Your task to perform on an android device: Go to location settings Image 0: 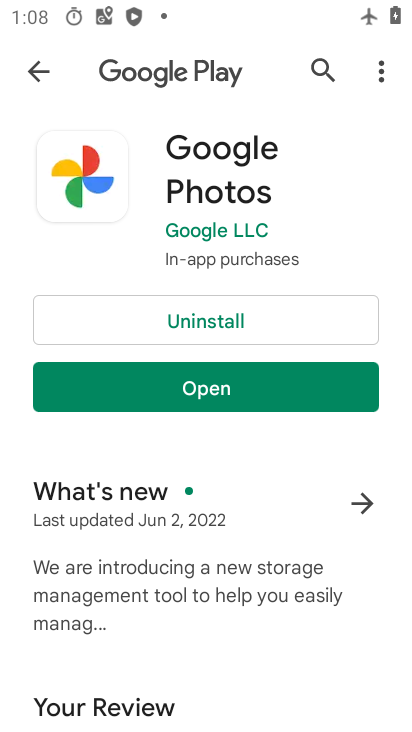
Step 0: press home button
Your task to perform on an android device: Go to location settings Image 1: 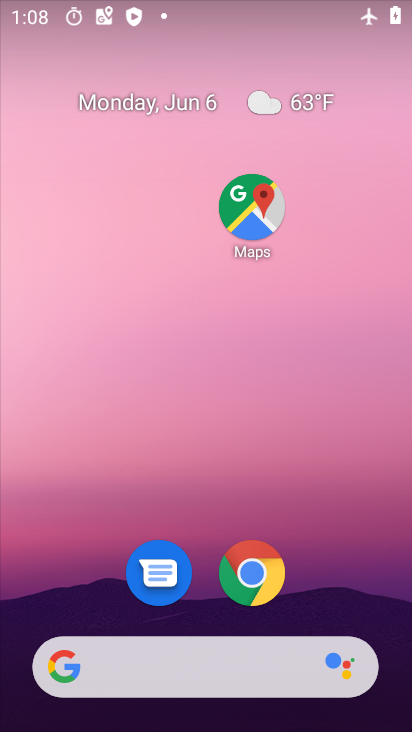
Step 1: drag from (219, 509) to (176, 61)
Your task to perform on an android device: Go to location settings Image 2: 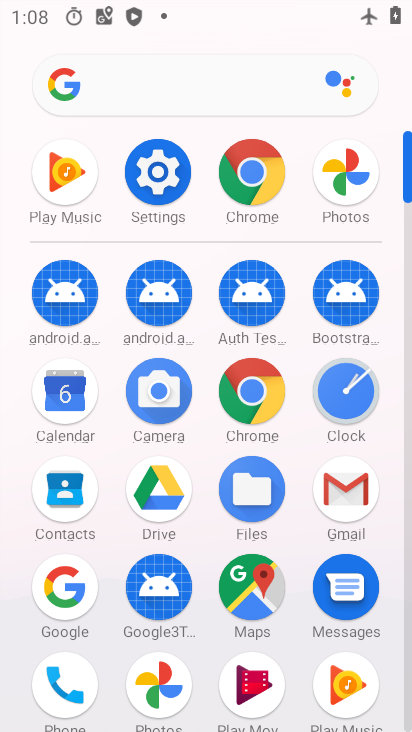
Step 2: drag from (211, 252) to (211, 7)
Your task to perform on an android device: Go to location settings Image 3: 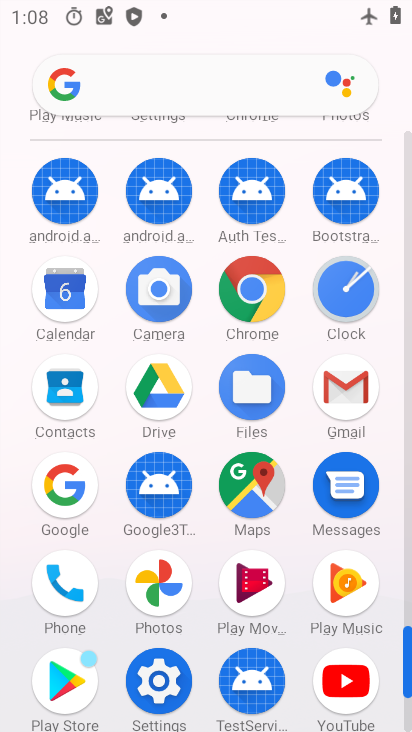
Step 3: click (167, 649)
Your task to perform on an android device: Go to location settings Image 4: 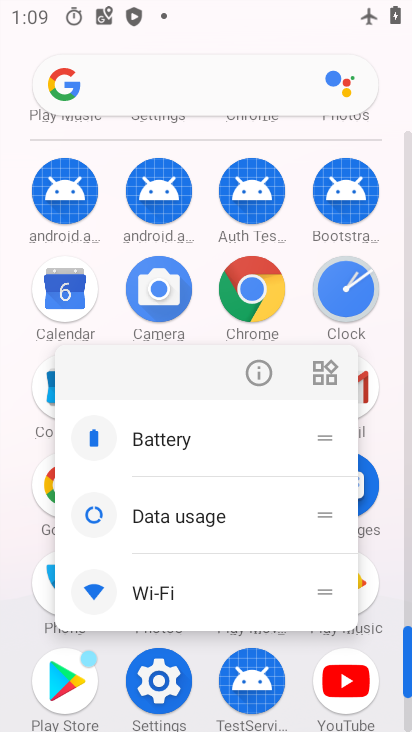
Step 4: click (163, 691)
Your task to perform on an android device: Go to location settings Image 5: 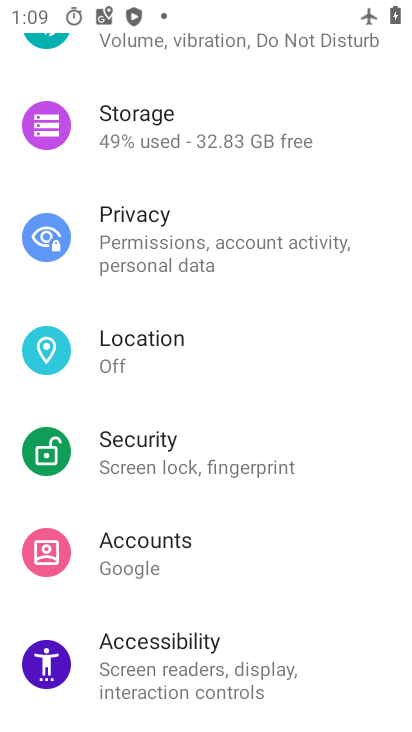
Step 5: click (176, 362)
Your task to perform on an android device: Go to location settings Image 6: 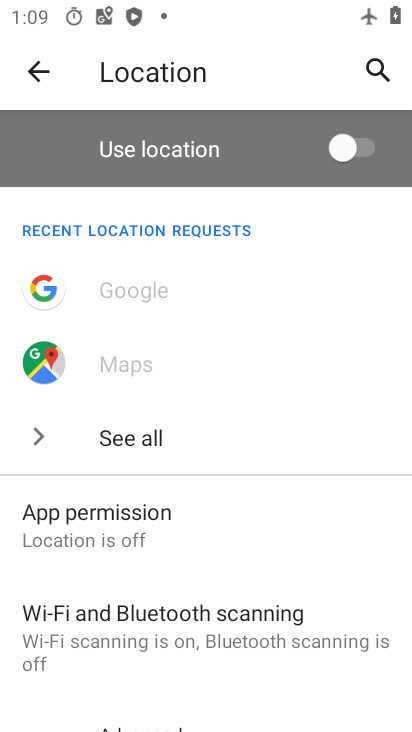
Step 6: task complete